Your task to perform on an android device: Show me popular games on the Play Store Image 0: 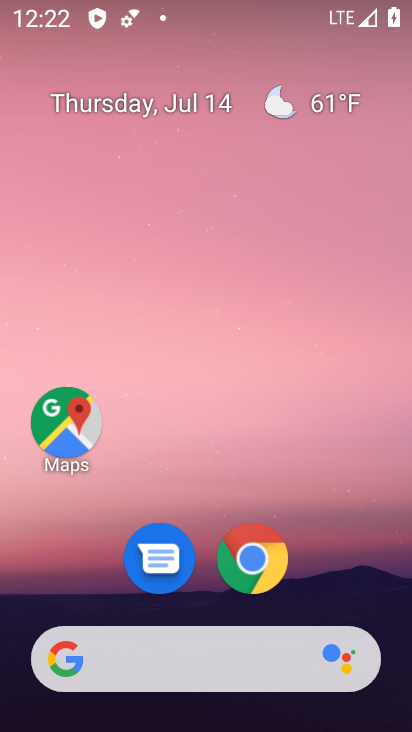
Step 0: drag from (186, 590) to (262, 104)
Your task to perform on an android device: Show me popular games on the Play Store Image 1: 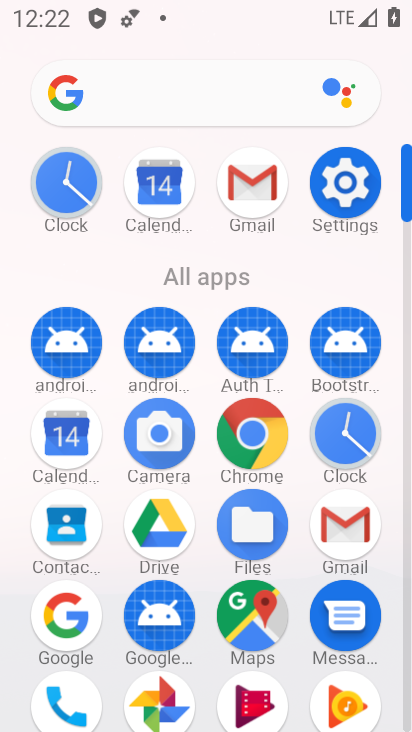
Step 1: click (356, 175)
Your task to perform on an android device: Show me popular games on the Play Store Image 2: 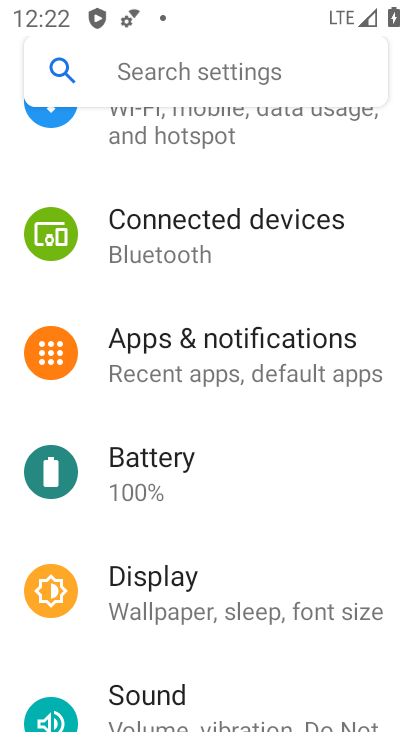
Step 2: press back button
Your task to perform on an android device: Show me popular games on the Play Store Image 3: 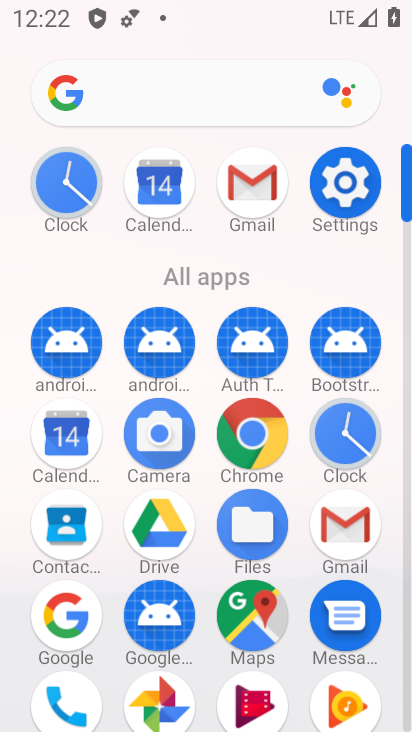
Step 3: press back button
Your task to perform on an android device: Show me popular games on the Play Store Image 4: 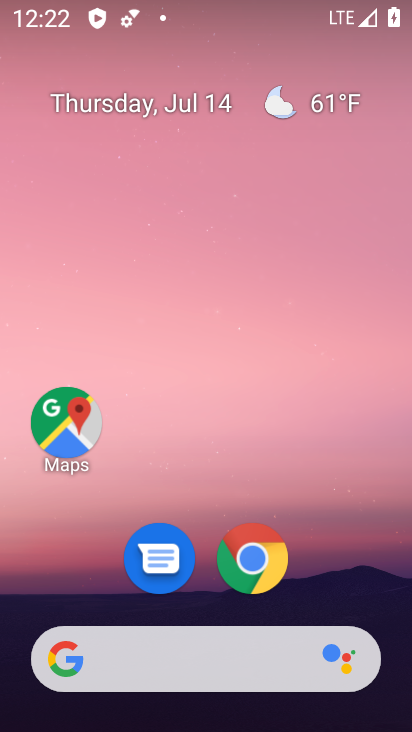
Step 4: drag from (96, 597) to (172, 8)
Your task to perform on an android device: Show me popular games on the Play Store Image 5: 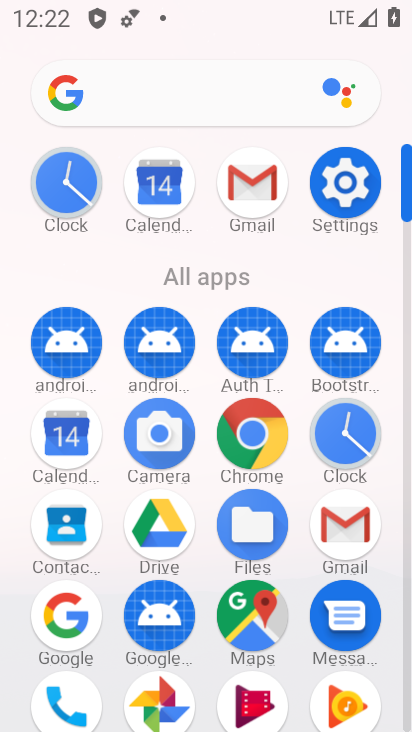
Step 5: drag from (205, 649) to (266, 109)
Your task to perform on an android device: Show me popular games on the Play Store Image 6: 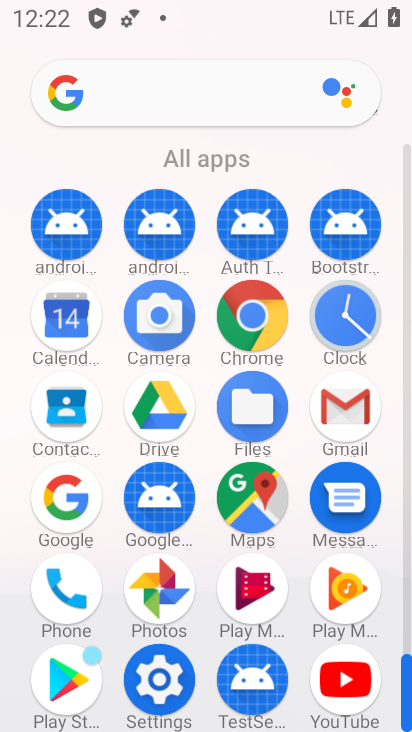
Step 6: click (73, 672)
Your task to perform on an android device: Show me popular games on the Play Store Image 7: 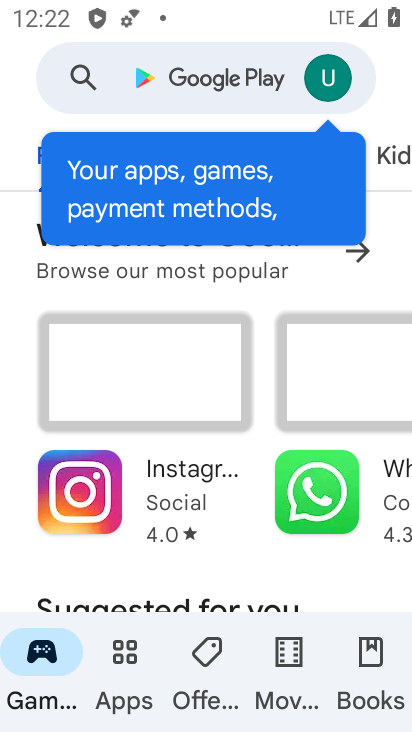
Step 7: drag from (210, 558) to (269, 145)
Your task to perform on an android device: Show me popular games on the Play Store Image 8: 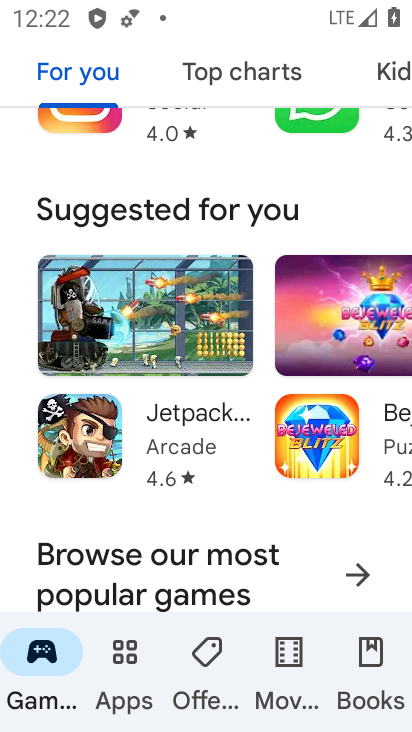
Step 8: click (347, 571)
Your task to perform on an android device: Show me popular games on the Play Store Image 9: 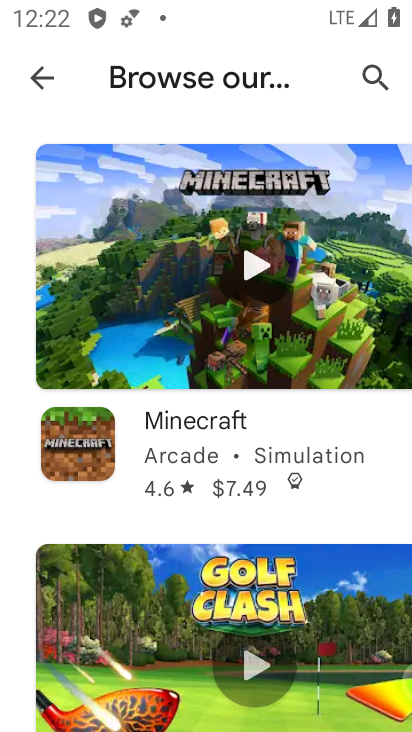
Step 9: task complete